Your task to perform on an android device: toggle improve location accuracy Image 0: 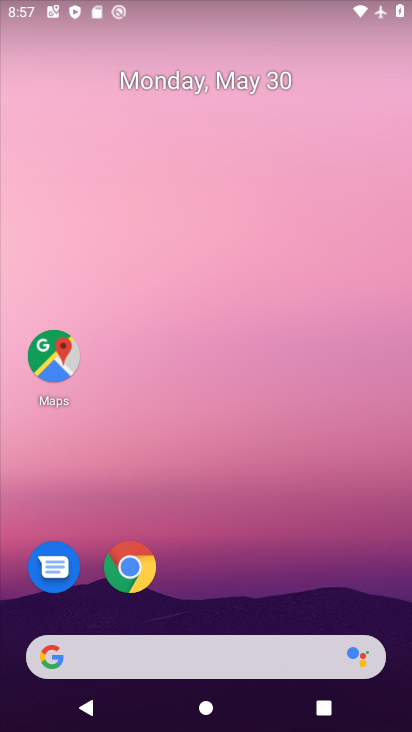
Step 0: drag from (242, 604) to (186, 115)
Your task to perform on an android device: toggle improve location accuracy Image 1: 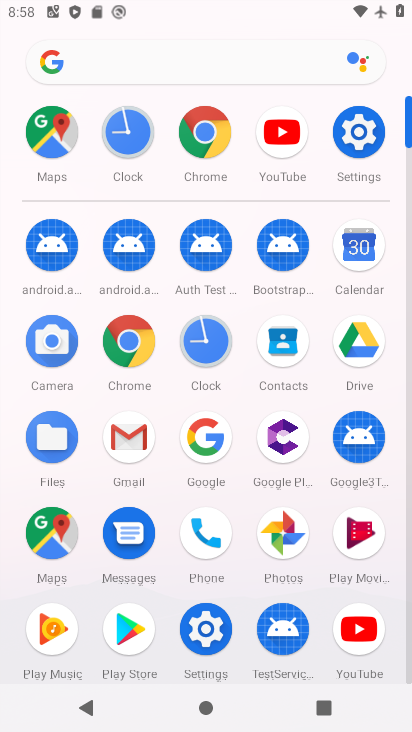
Step 1: click (363, 136)
Your task to perform on an android device: toggle improve location accuracy Image 2: 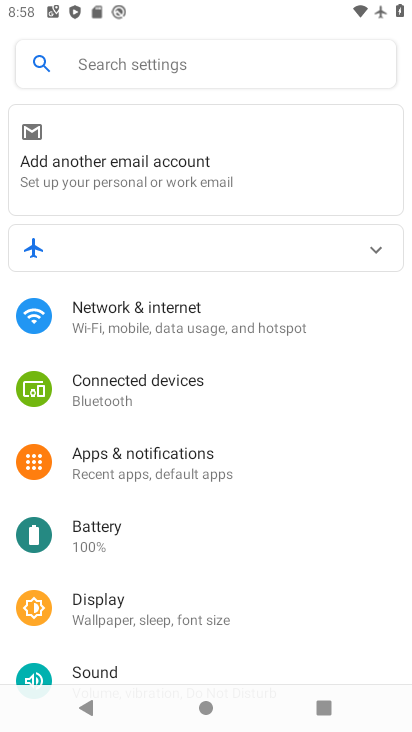
Step 2: drag from (198, 646) to (148, 203)
Your task to perform on an android device: toggle improve location accuracy Image 3: 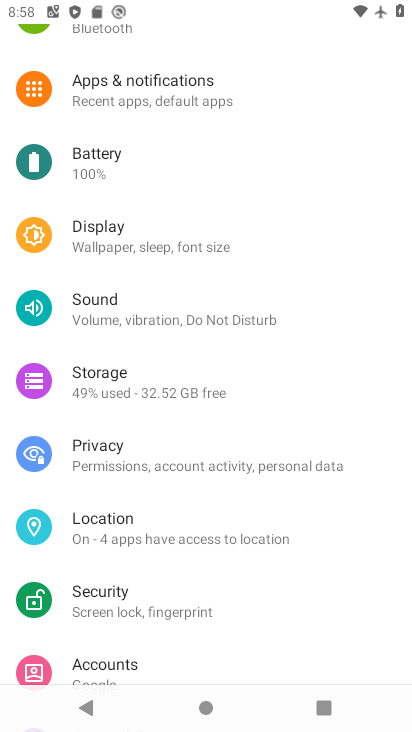
Step 3: click (152, 547)
Your task to perform on an android device: toggle improve location accuracy Image 4: 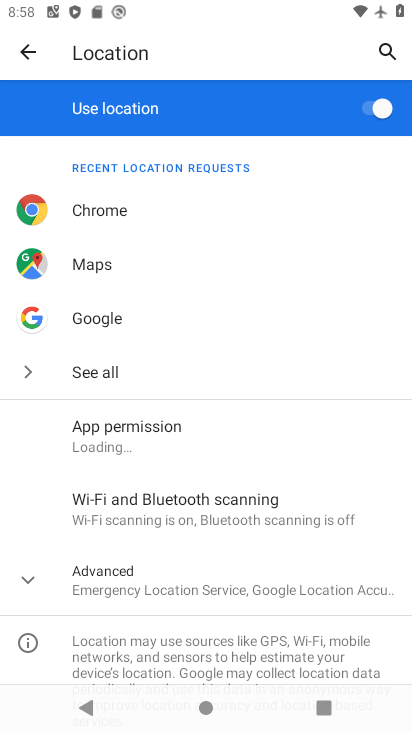
Step 4: drag from (191, 616) to (150, 225)
Your task to perform on an android device: toggle improve location accuracy Image 5: 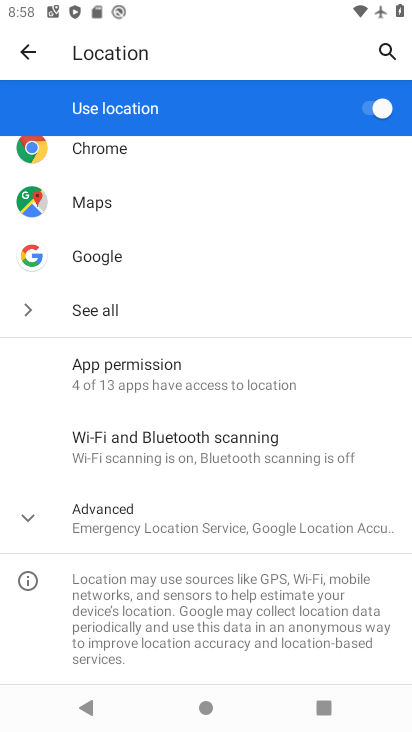
Step 5: click (187, 512)
Your task to perform on an android device: toggle improve location accuracy Image 6: 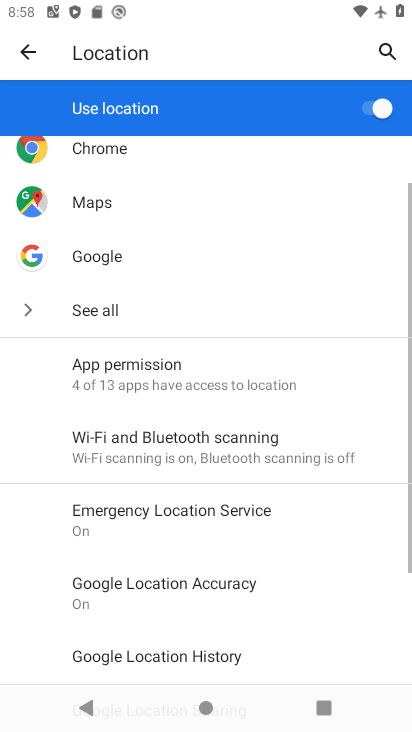
Step 6: drag from (187, 512) to (166, 152)
Your task to perform on an android device: toggle improve location accuracy Image 7: 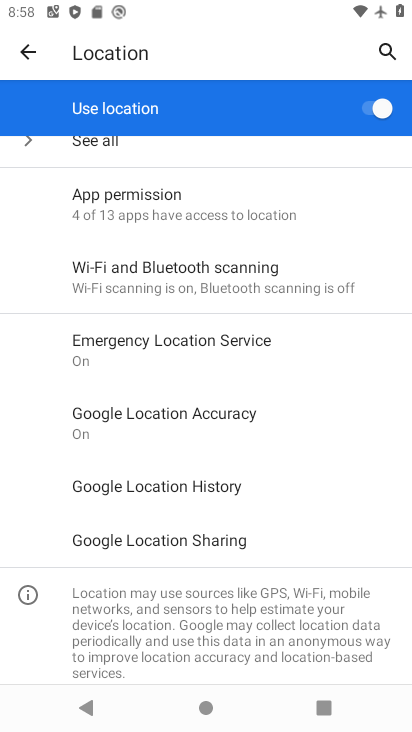
Step 7: click (198, 412)
Your task to perform on an android device: toggle improve location accuracy Image 8: 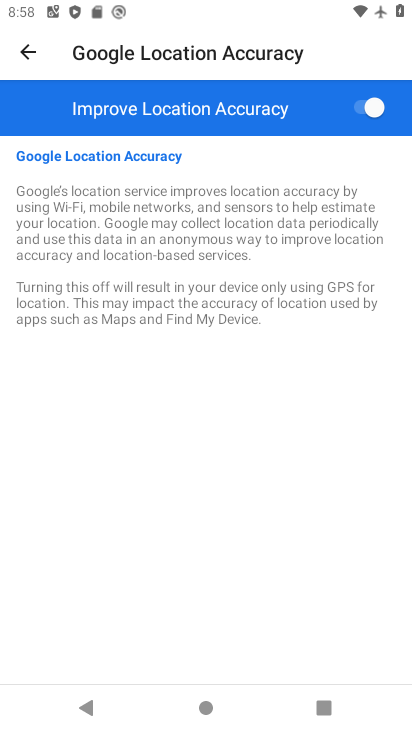
Step 8: click (363, 115)
Your task to perform on an android device: toggle improve location accuracy Image 9: 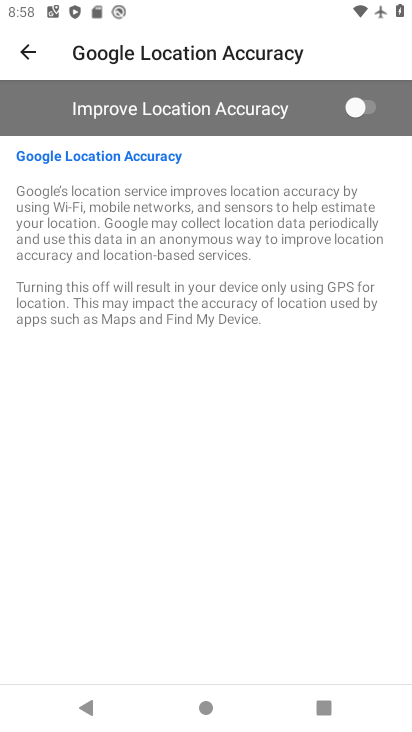
Step 9: task complete